Your task to perform on an android device: turn on airplane mode Image 0: 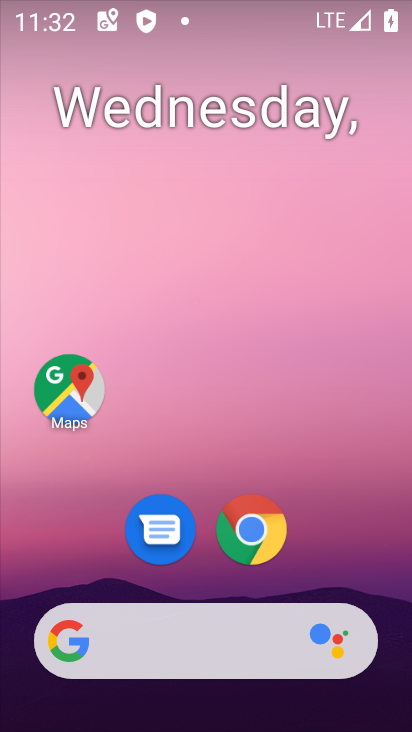
Step 0: drag from (221, 602) to (207, 124)
Your task to perform on an android device: turn on airplane mode Image 1: 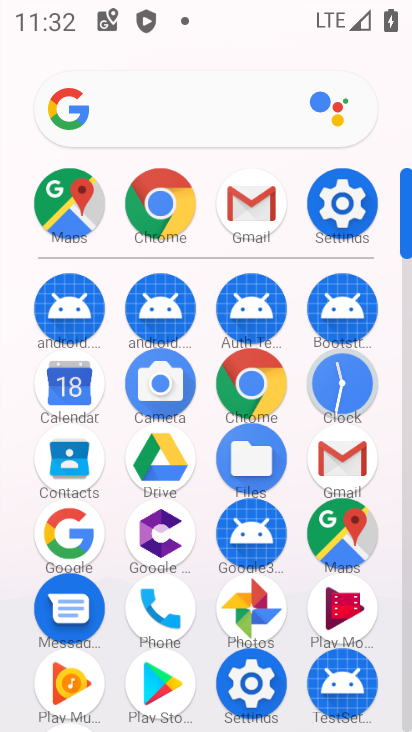
Step 1: click (369, 194)
Your task to perform on an android device: turn on airplane mode Image 2: 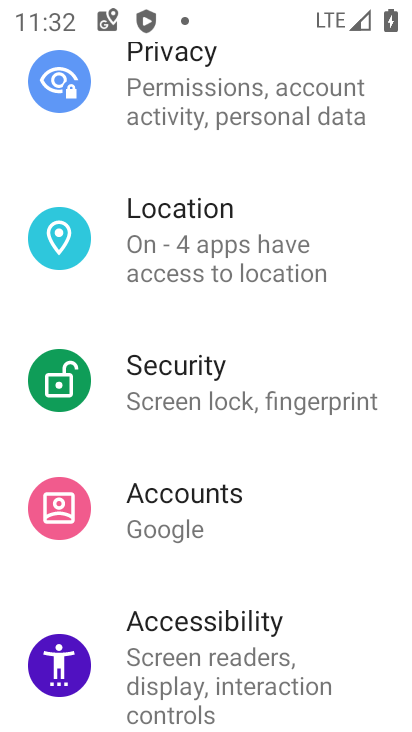
Step 2: drag from (349, 206) to (351, 663)
Your task to perform on an android device: turn on airplane mode Image 3: 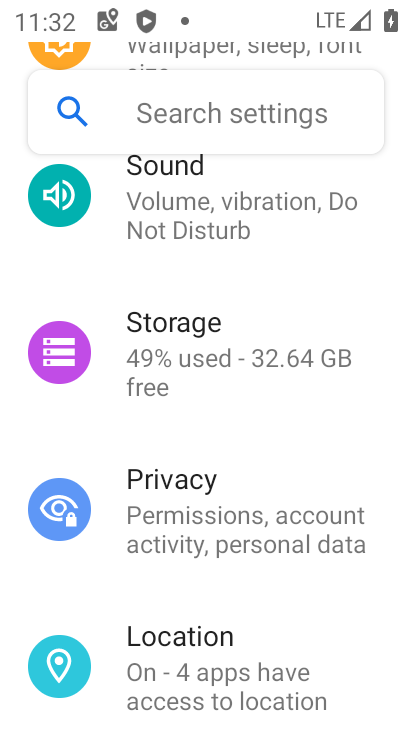
Step 3: drag from (322, 208) to (294, 644)
Your task to perform on an android device: turn on airplane mode Image 4: 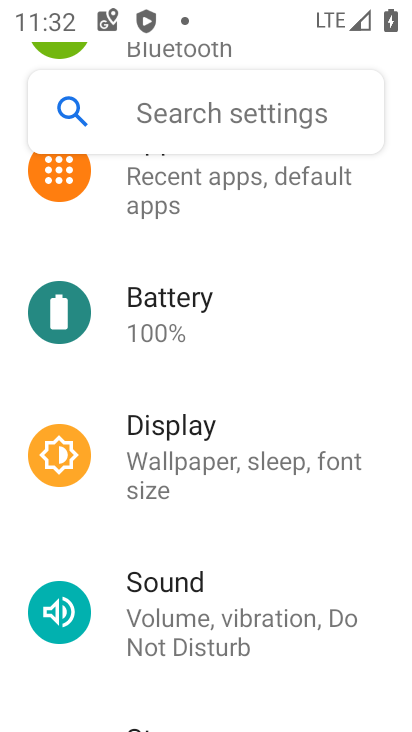
Step 4: drag from (327, 218) to (298, 705)
Your task to perform on an android device: turn on airplane mode Image 5: 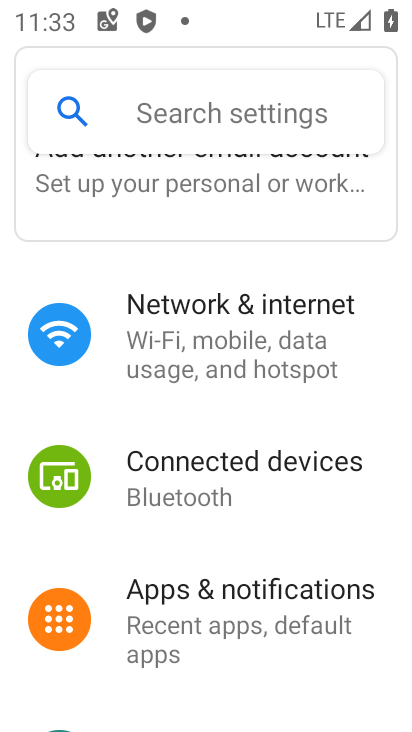
Step 5: click (182, 383)
Your task to perform on an android device: turn on airplane mode Image 6: 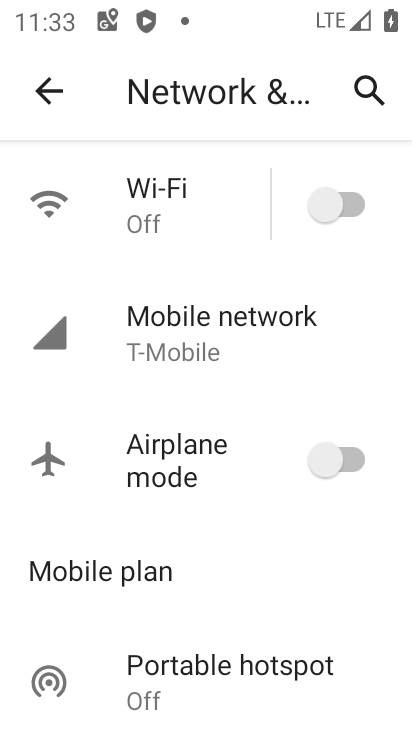
Step 6: click (343, 471)
Your task to perform on an android device: turn on airplane mode Image 7: 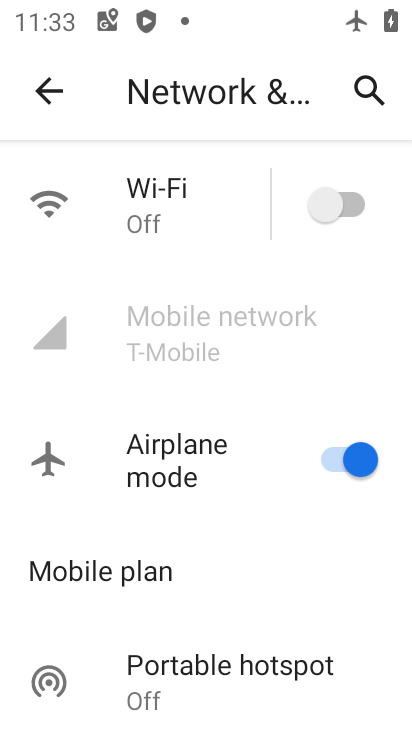
Step 7: task complete